Your task to perform on an android device: Open Wikipedia Image 0: 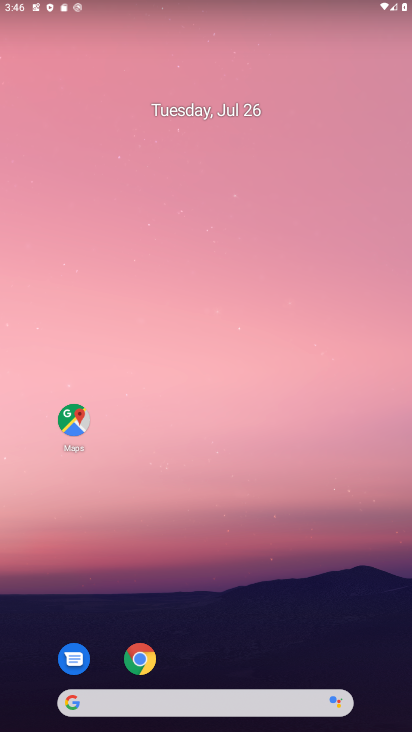
Step 0: click (137, 664)
Your task to perform on an android device: Open Wikipedia Image 1: 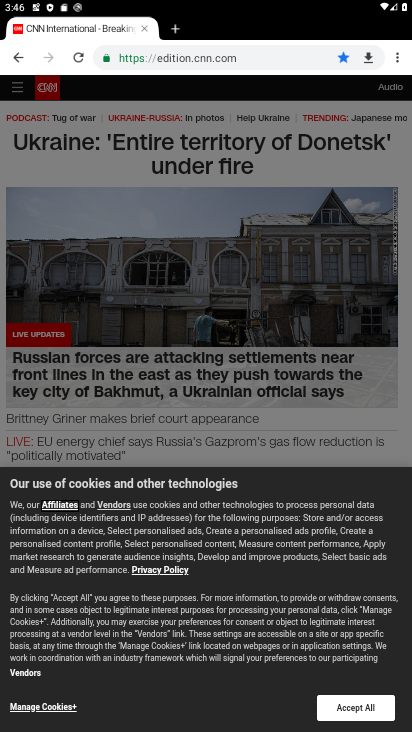
Step 1: click (282, 53)
Your task to perform on an android device: Open Wikipedia Image 2: 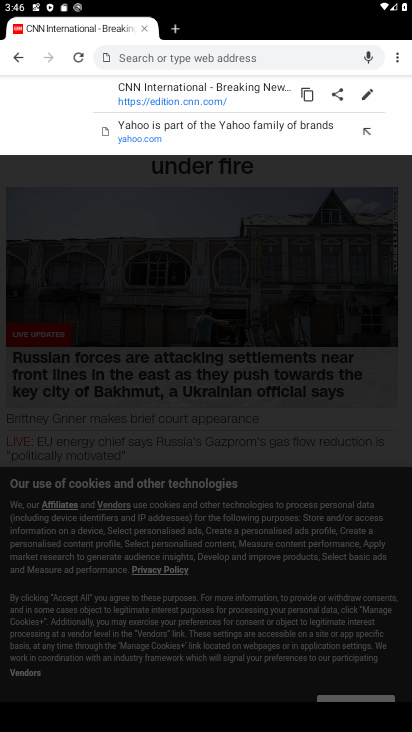
Step 2: type "wikipedia"
Your task to perform on an android device: Open Wikipedia Image 3: 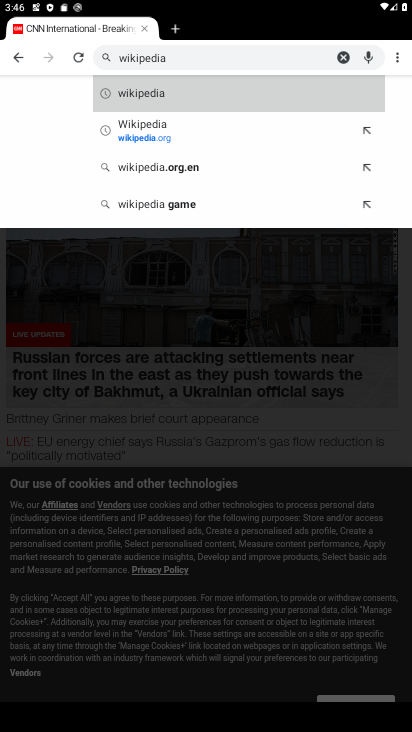
Step 3: click (364, 83)
Your task to perform on an android device: Open Wikipedia Image 4: 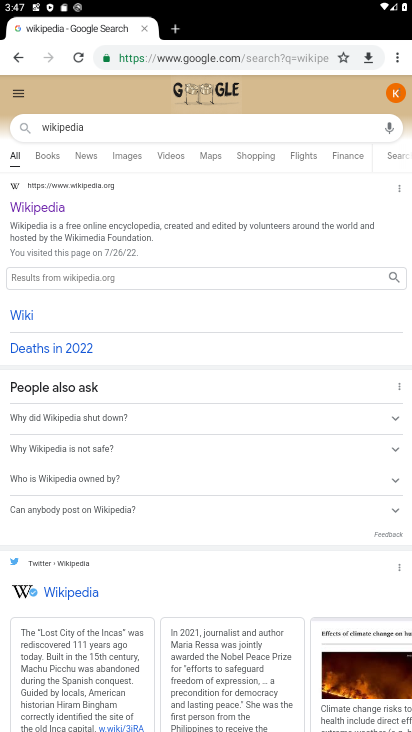
Step 4: click (42, 210)
Your task to perform on an android device: Open Wikipedia Image 5: 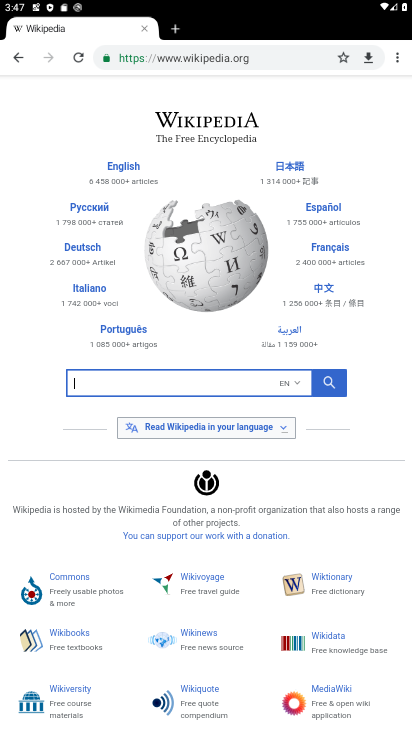
Step 5: task complete